Your task to perform on an android device: Find coffee shops on Maps Image 0: 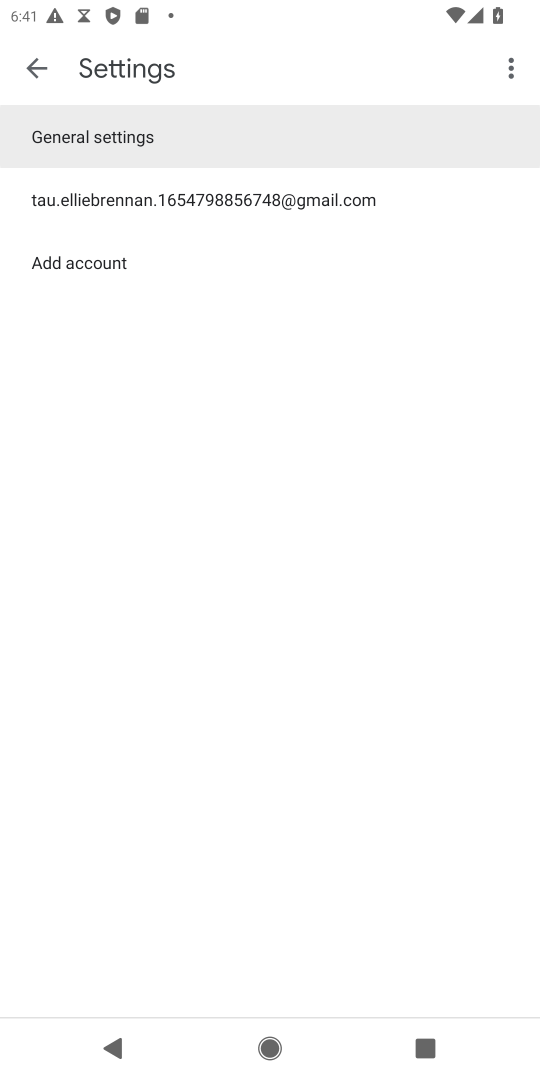
Step 0: press home button
Your task to perform on an android device: Find coffee shops on Maps Image 1: 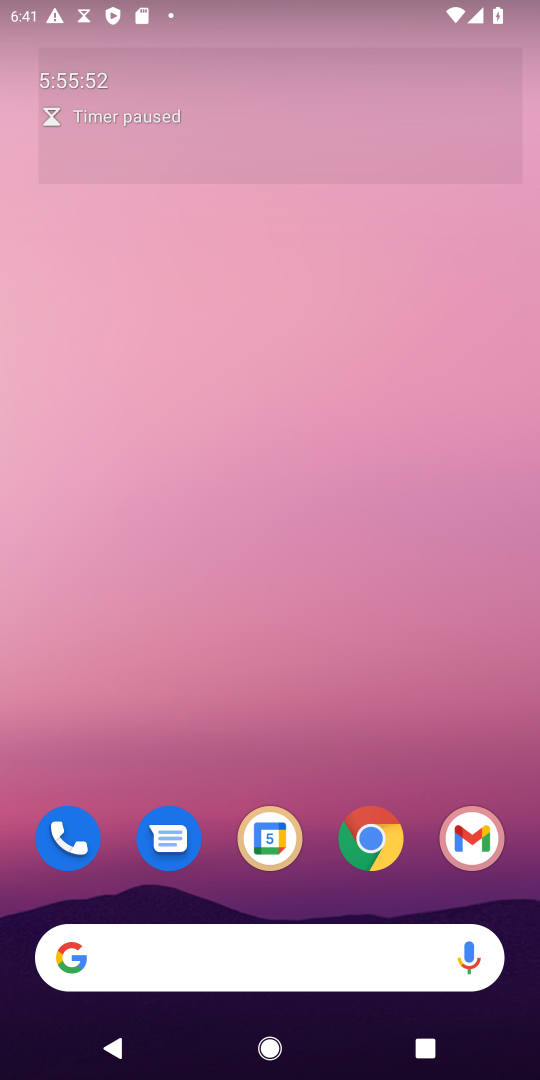
Step 1: drag from (386, 730) to (417, 77)
Your task to perform on an android device: Find coffee shops on Maps Image 2: 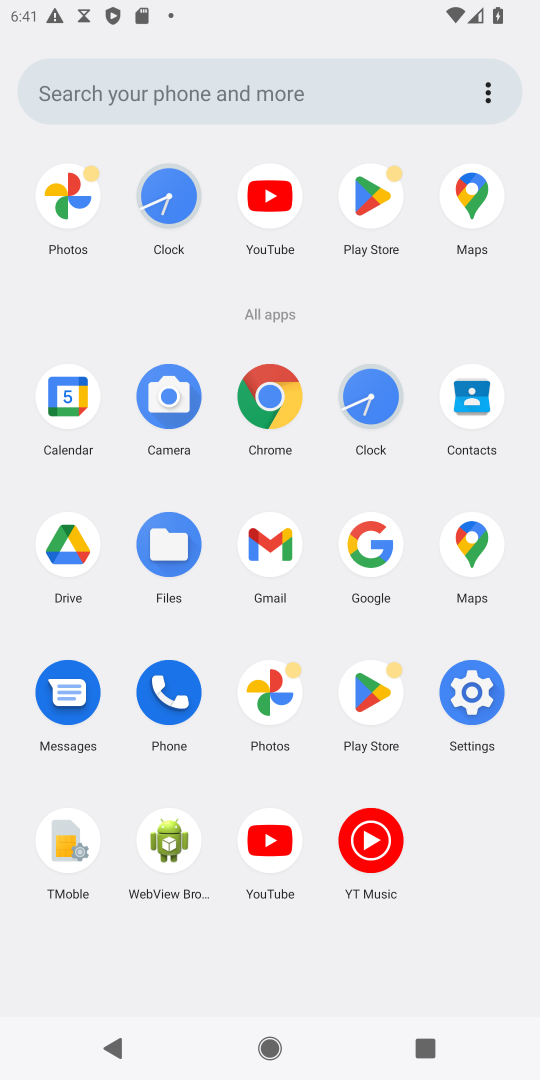
Step 2: click (479, 196)
Your task to perform on an android device: Find coffee shops on Maps Image 3: 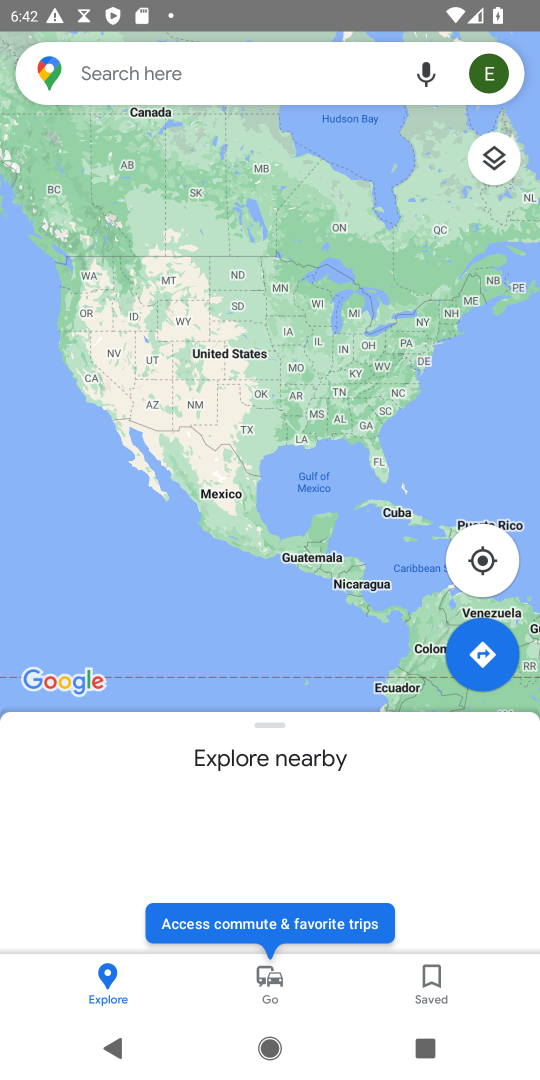
Step 3: type "coffee shops"
Your task to perform on an android device: Find coffee shops on Maps Image 4: 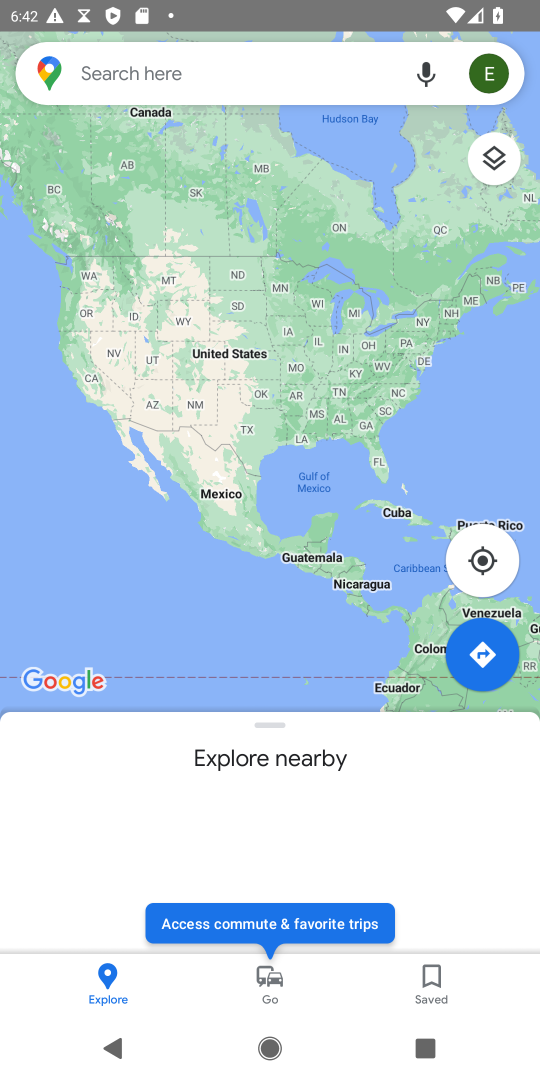
Step 4: click (173, 75)
Your task to perform on an android device: Find coffee shops on Maps Image 5: 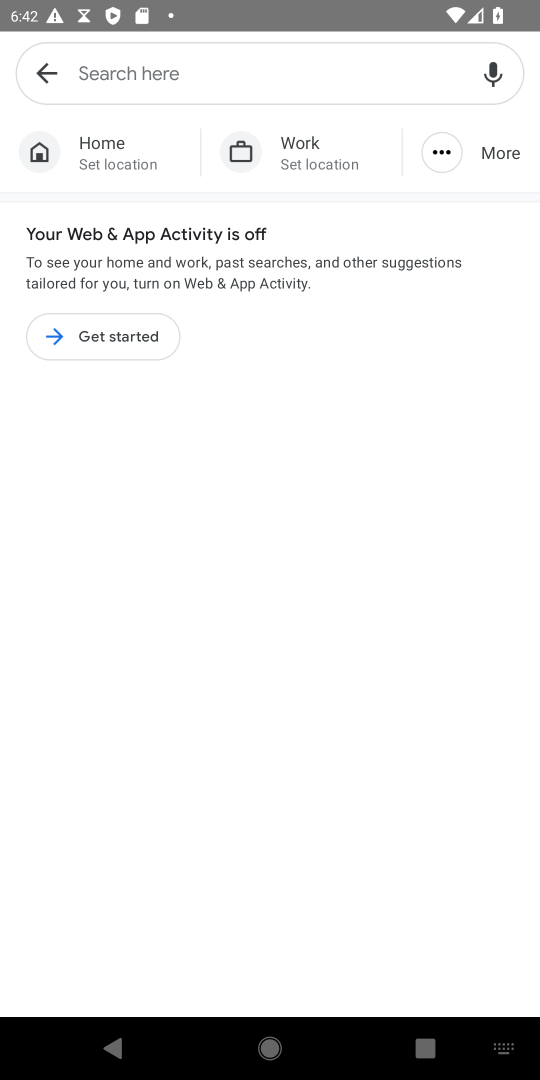
Step 5: click (137, 79)
Your task to perform on an android device: Find coffee shops on Maps Image 6: 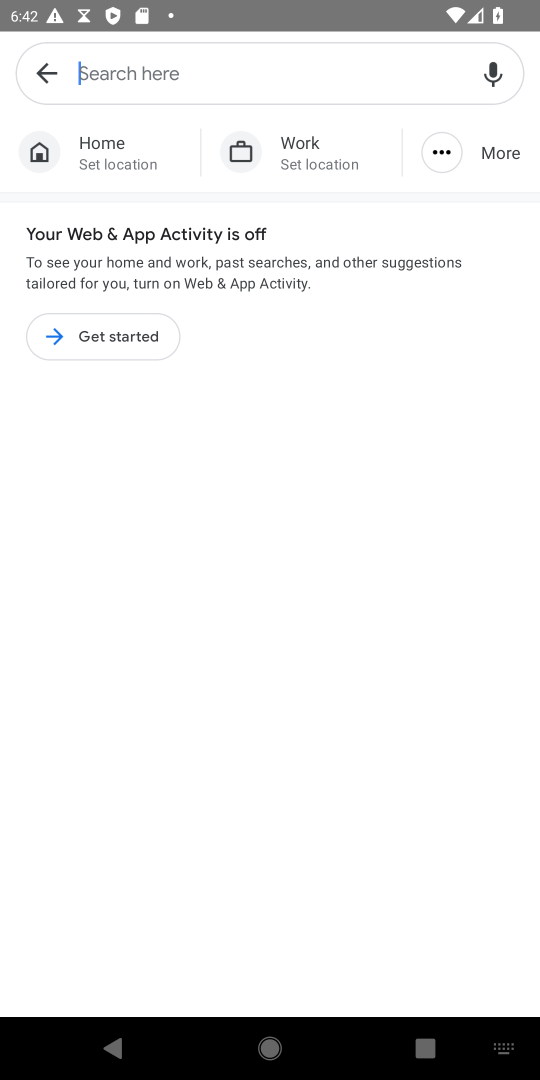
Step 6: type "coffee shops"
Your task to perform on an android device: Find coffee shops on Maps Image 7: 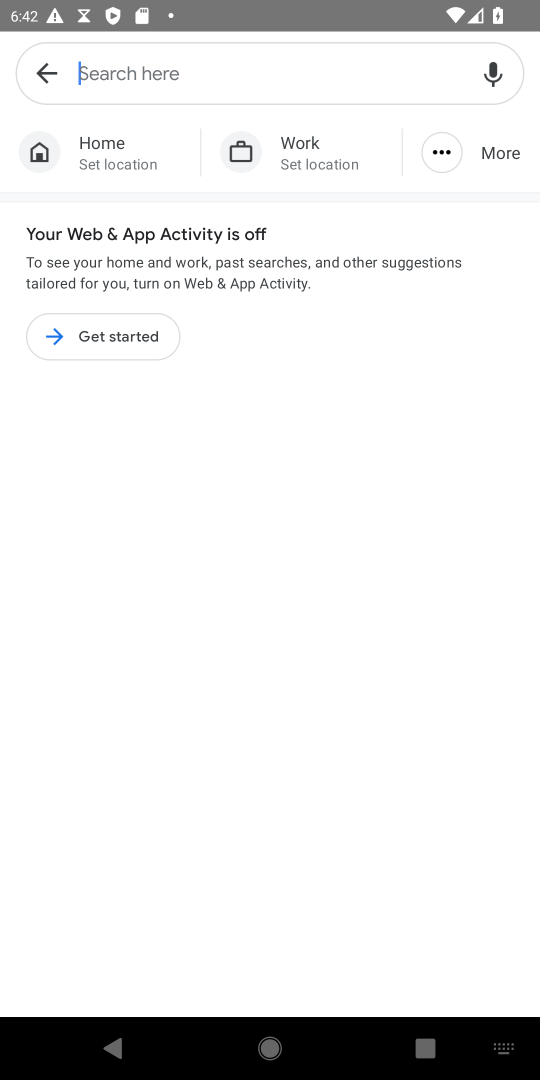
Step 7: click (117, 74)
Your task to perform on an android device: Find coffee shops on Maps Image 8: 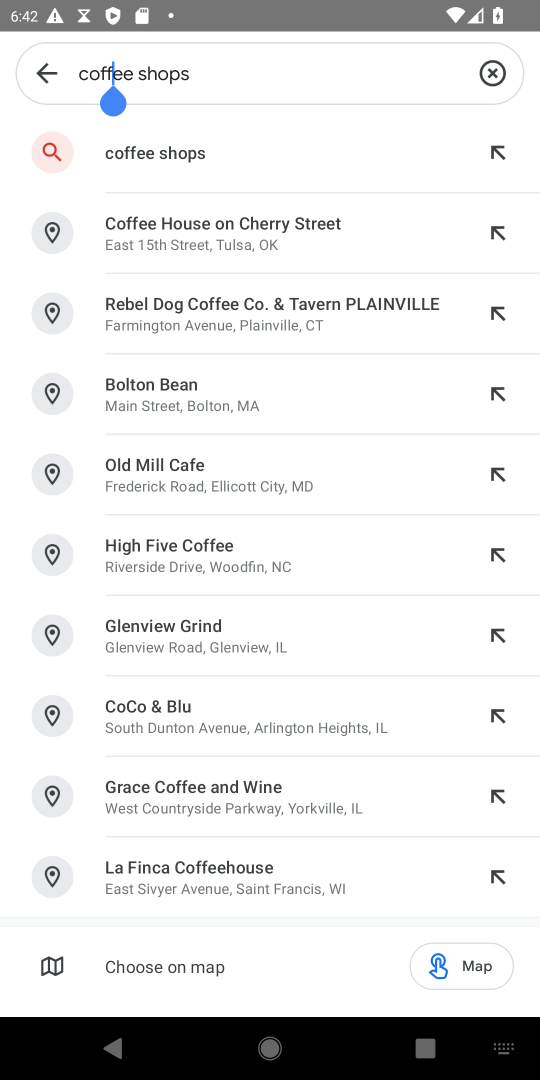
Step 8: press enter
Your task to perform on an android device: Find coffee shops on Maps Image 9: 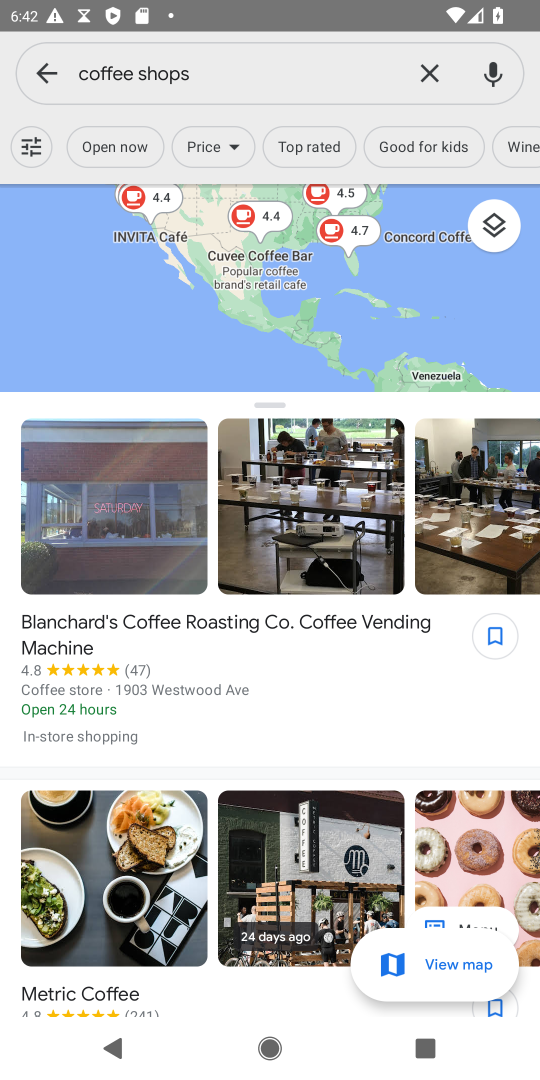
Step 9: task complete